Your task to perform on an android device: turn on the 24-hour format for clock Image 0: 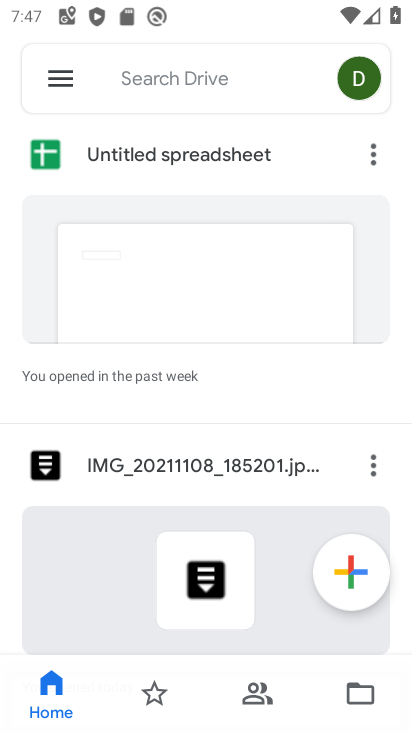
Step 0: press home button
Your task to perform on an android device: turn on the 24-hour format for clock Image 1: 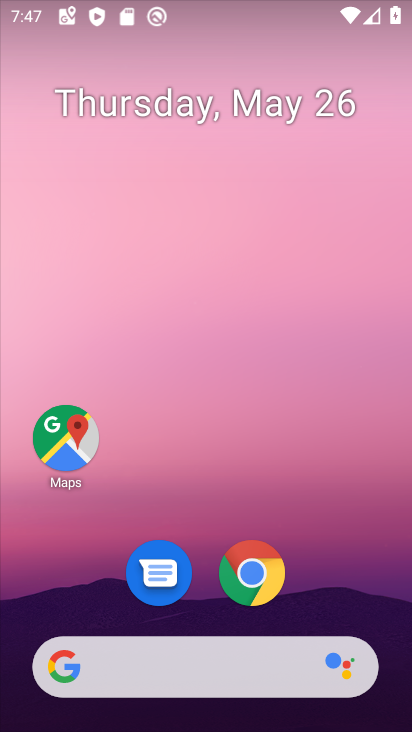
Step 1: drag from (353, 390) to (282, 88)
Your task to perform on an android device: turn on the 24-hour format for clock Image 2: 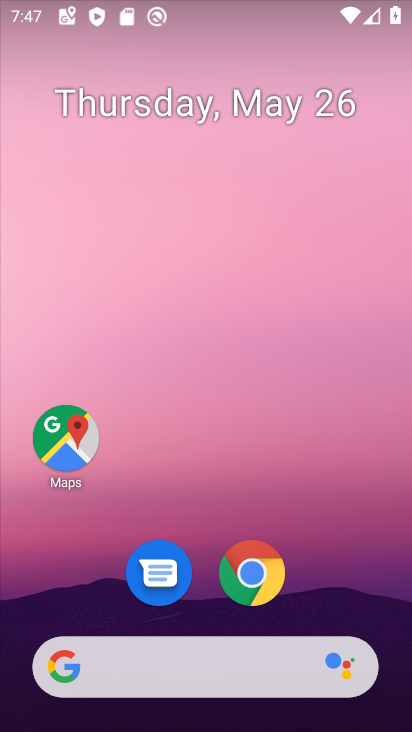
Step 2: drag from (355, 624) to (275, 162)
Your task to perform on an android device: turn on the 24-hour format for clock Image 3: 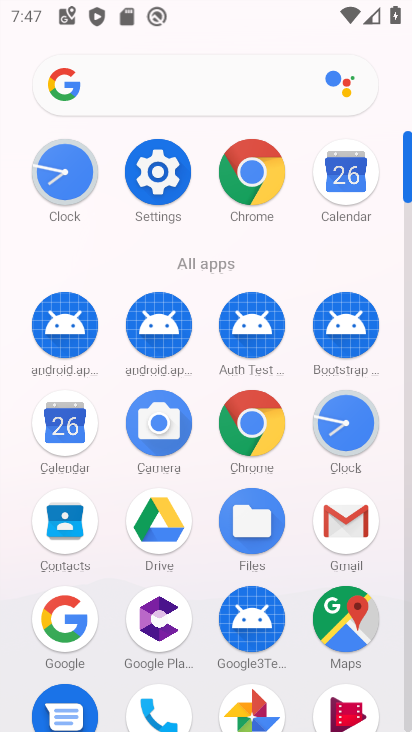
Step 3: click (358, 442)
Your task to perform on an android device: turn on the 24-hour format for clock Image 4: 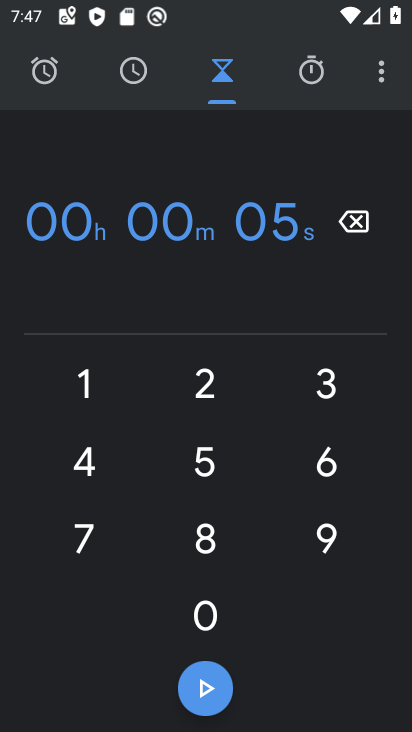
Step 4: click (379, 67)
Your task to perform on an android device: turn on the 24-hour format for clock Image 5: 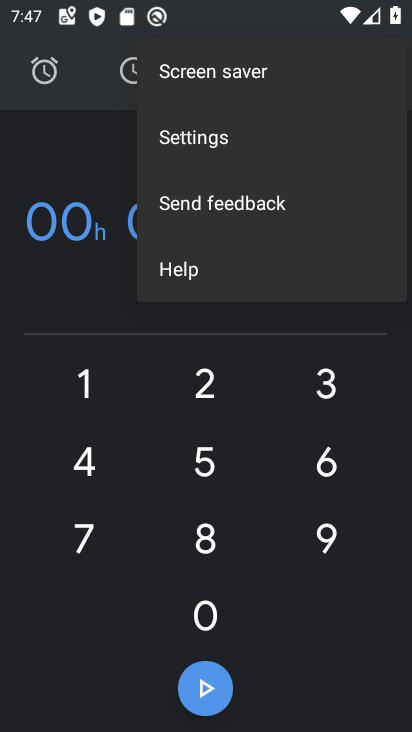
Step 5: click (235, 129)
Your task to perform on an android device: turn on the 24-hour format for clock Image 6: 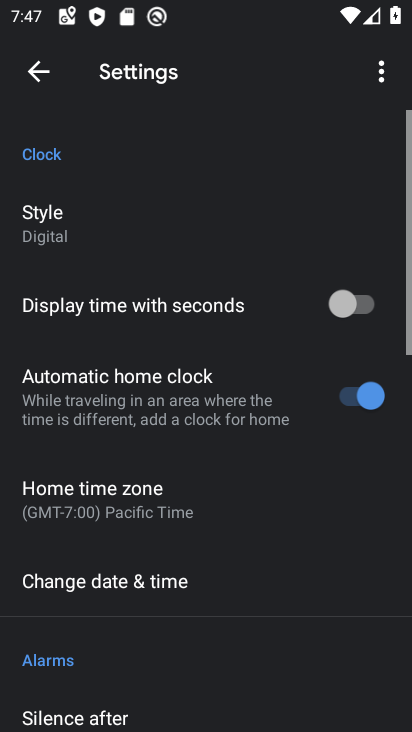
Step 6: drag from (308, 591) to (314, 152)
Your task to perform on an android device: turn on the 24-hour format for clock Image 7: 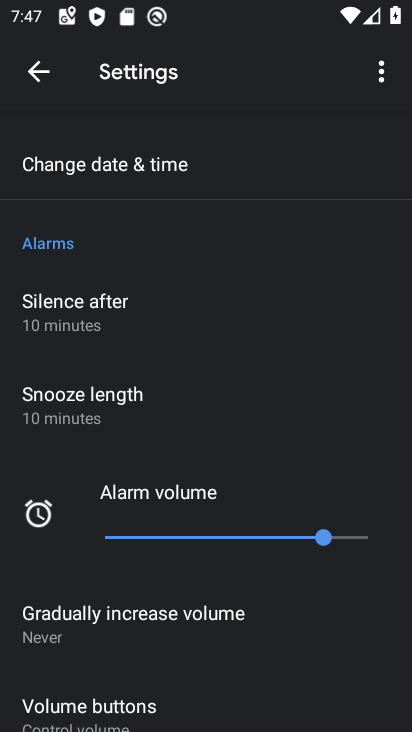
Step 7: drag from (263, 602) to (191, 507)
Your task to perform on an android device: turn on the 24-hour format for clock Image 8: 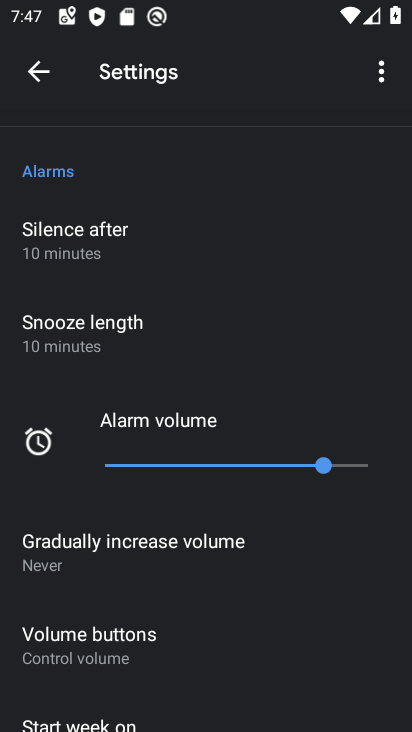
Step 8: drag from (142, 297) to (197, 591)
Your task to perform on an android device: turn on the 24-hour format for clock Image 9: 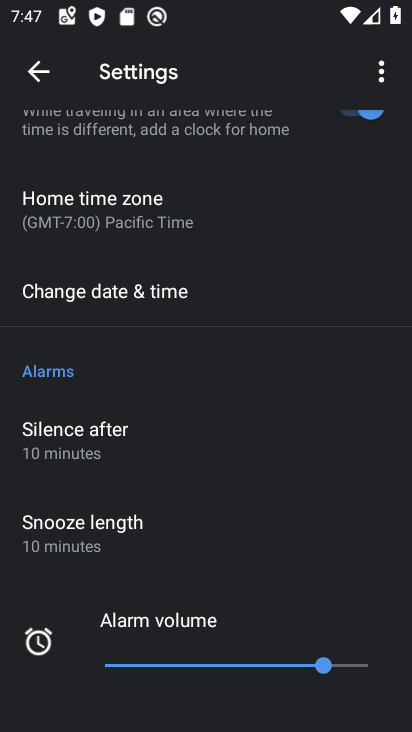
Step 9: click (128, 293)
Your task to perform on an android device: turn on the 24-hour format for clock Image 10: 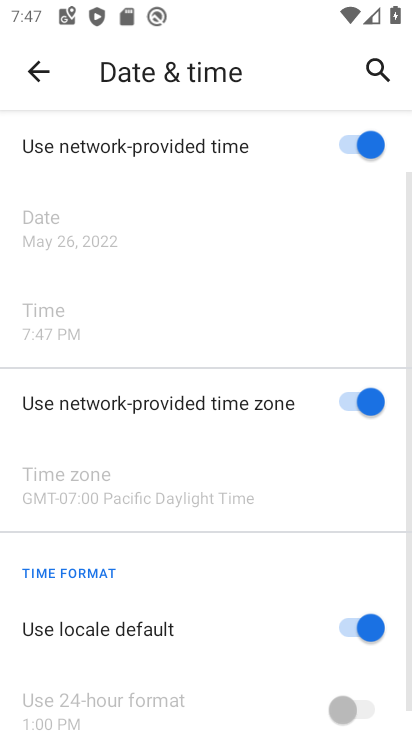
Step 10: drag from (229, 691) to (244, 382)
Your task to perform on an android device: turn on the 24-hour format for clock Image 11: 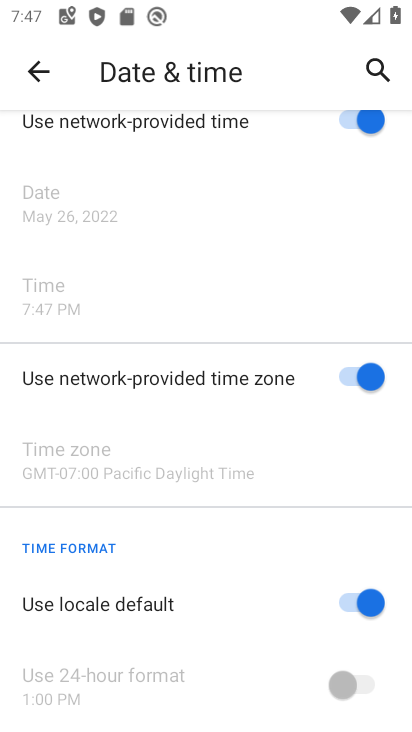
Step 11: click (371, 597)
Your task to perform on an android device: turn on the 24-hour format for clock Image 12: 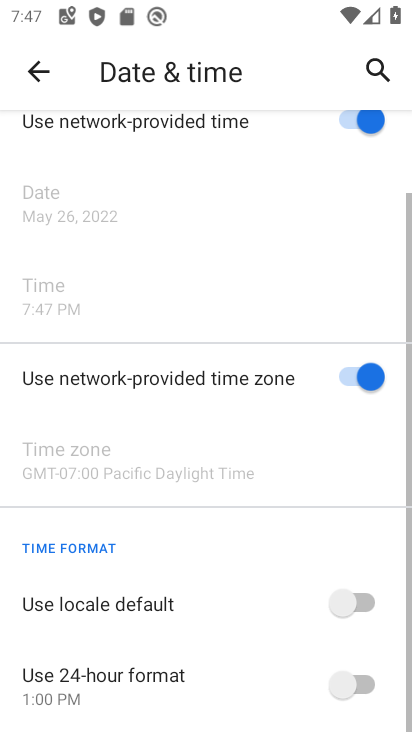
Step 12: click (338, 694)
Your task to perform on an android device: turn on the 24-hour format for clock Image 13: 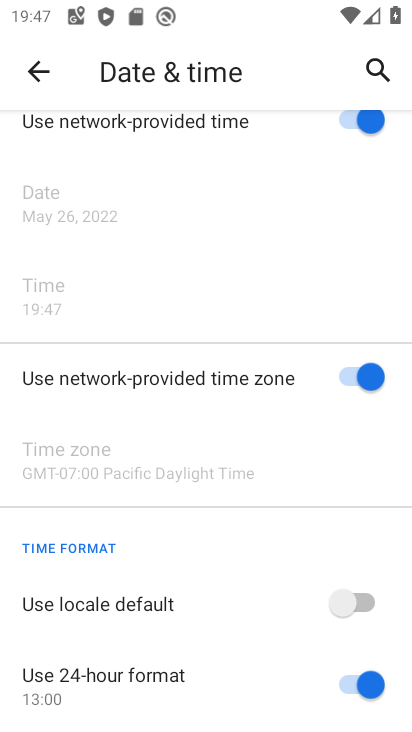
Step 13: task complete